Your task to perform on an android device: turn on airplane mode Image 0: 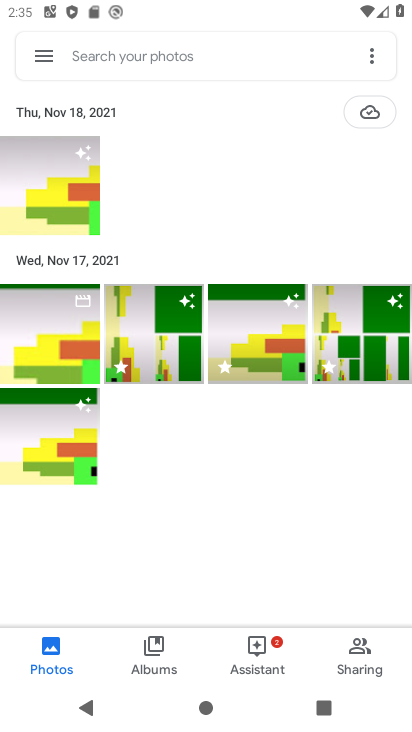
Step 0: press home button
Your task to perform on an android device: turn on airplane mode Image 1: 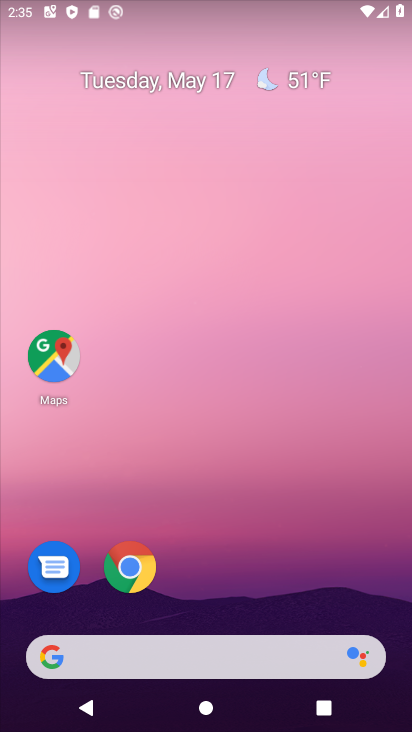
Step 1: drag from (214, 665) to (216, 58)
Your task to perform on an android device: turn on airplane mode Image 2: 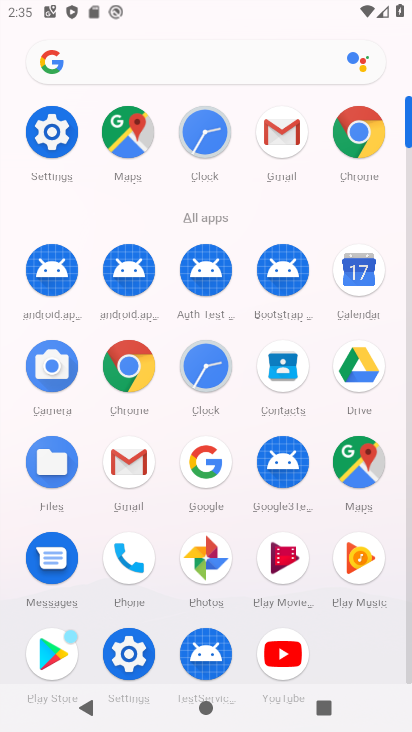
Step 2: click (68, 139)
Your task to perform on an android device: turn on airplane mode Image 3: 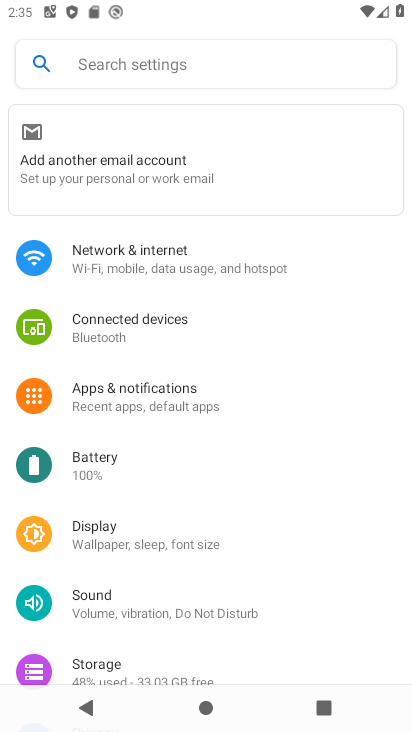
Step 3: click (147, 278)
Your task to perform on an android device: turn on airplane mode Image 4: 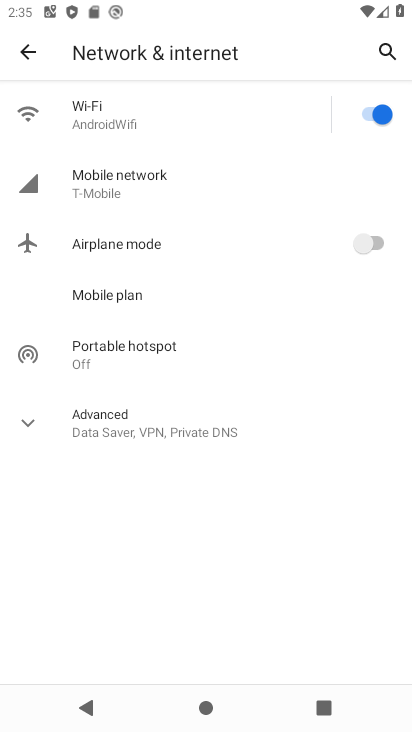
Step 4: click (370, 241)
Your task to perform on an android device: turn on airplane mode Image 5: 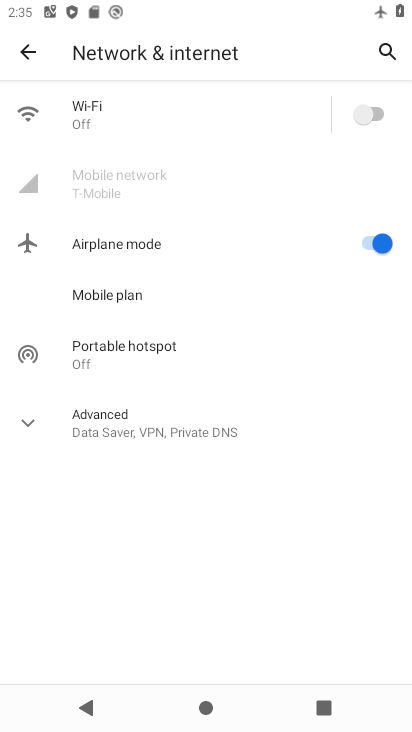
Step 5: task complete